Your task to perform on an android device: What's the weather going to be this weekend? Image 0: 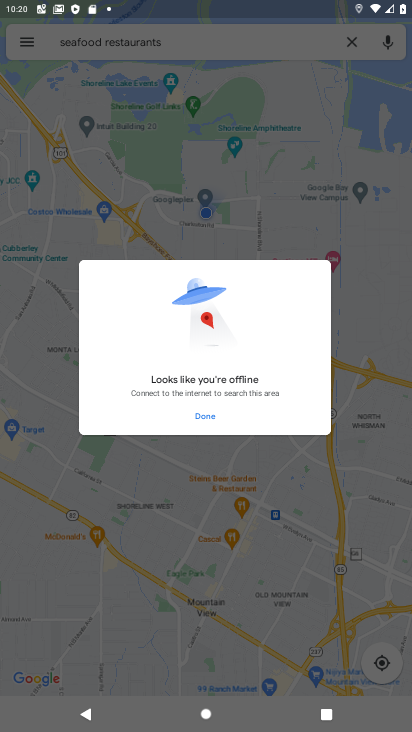
Step 0: press home button
Your task to perform on an android device: What's the weather going to be this weekend? Image 1: 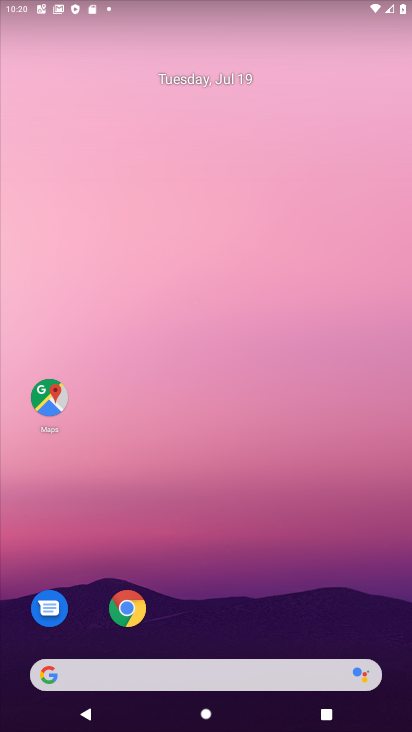
Step 1: drag from (295, 627) to (215, 57)
Your task to perform on an android device: What's the weather going to be this weekend? Image 2: 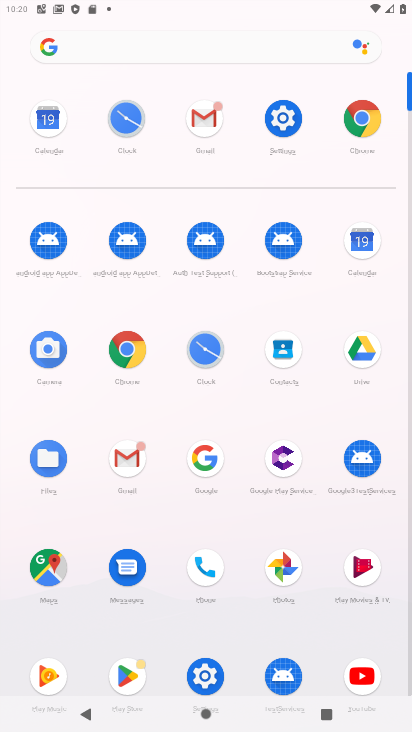
Step 2: click (362, 125)
Your task to perform on an android device: What's the weather going to be this weekend? Image 3: 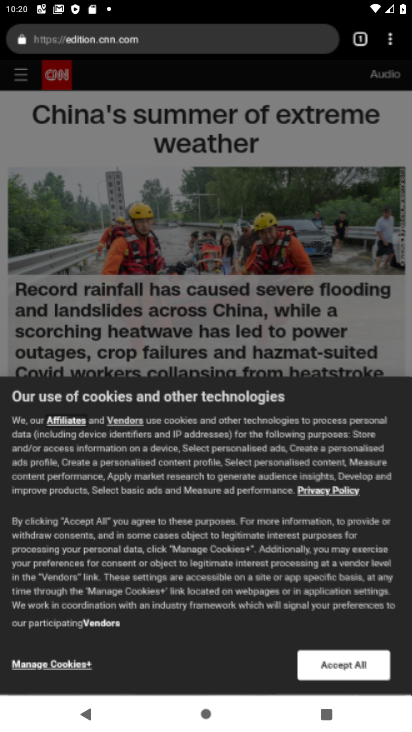
Step 3: click (139, 33)
Your task to perform on an android device: What's the weather going to be this weekend? Image 4: 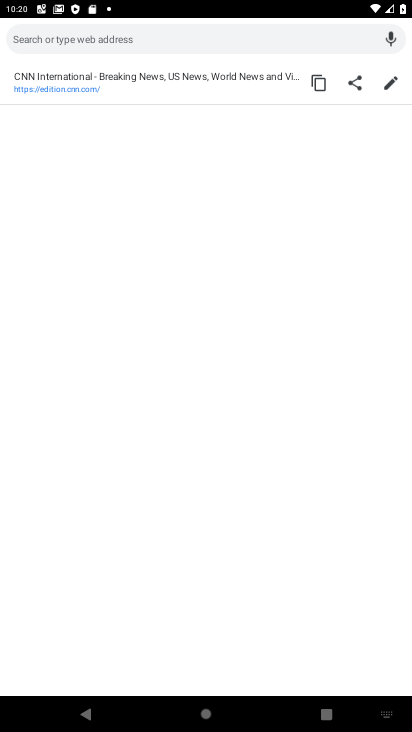
Step 4: type "weather"
Your task to perform on an android device: What's the weather going to be this weekend? Image 5: 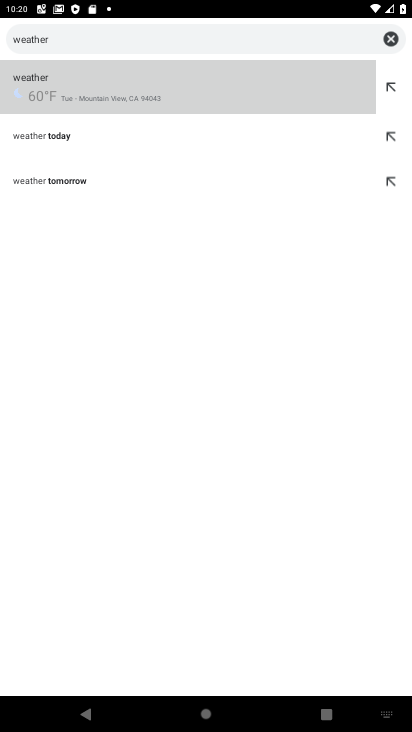
Step 5: click (69, 78)
Your task to perform on an android device: What's the weather going to be this weekend? Image 6: 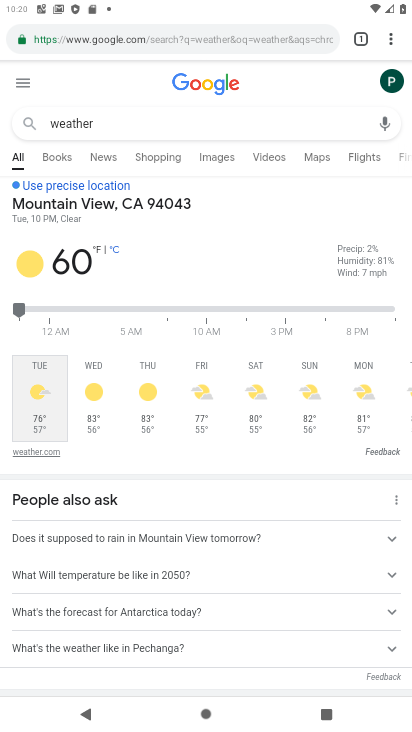
Step 6: click (255, 381)
Your task to perform on an android device: What's the weather going to be this weekend? Image 7: 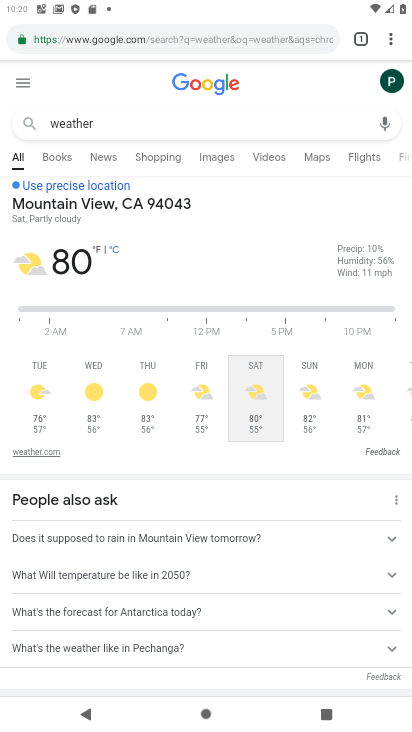
Step 7: task complete